Your task to perform on an android device: Play the last video I watched on Youtube Image 0: 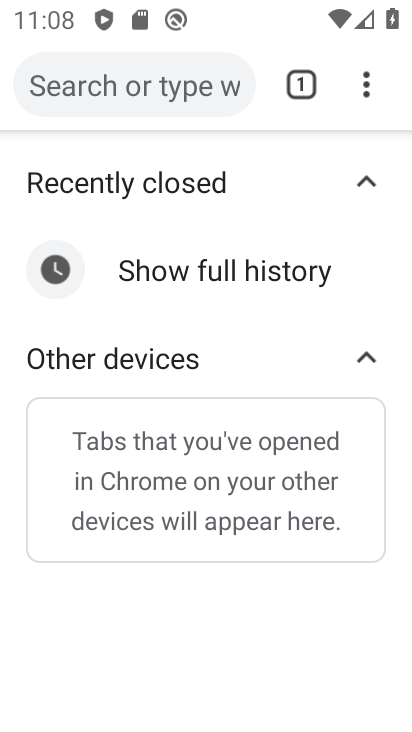
Step 0: press home button
Your task to perform on an android device: Play the last video I watched on Youtube Image 1: 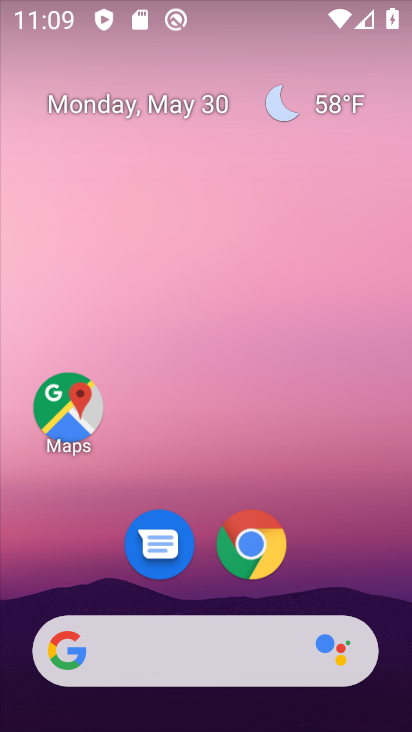
Step 1: drag from (385, 586) to (344, 54)
Your task to perform on an android device: Play the last video I watched on Youtube Image 2: 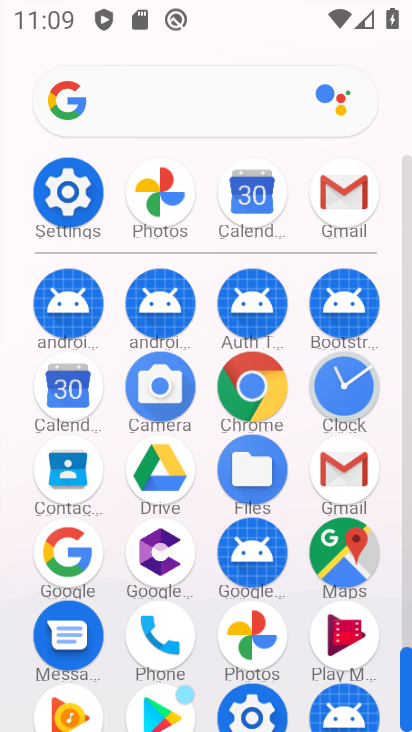
Step 2: drag from (403, 690) to (276, 731)
Your task to perform on an android device: Play the last video I watched on Youtube Image 3: 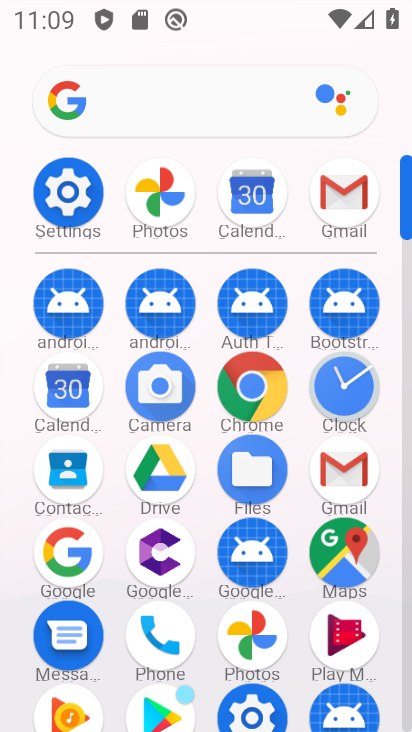
Step 3: click (408, 727)
Your task to perform on an android device: Play the last video I watched on Youtube Image 4: 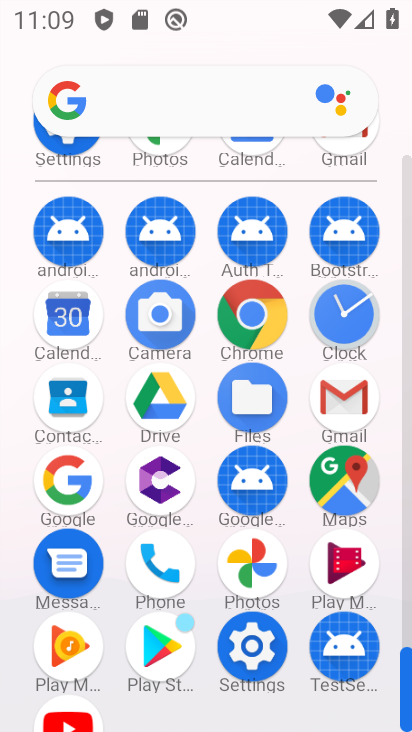
Step 4: click (73, 720)
Your task to perform on an android device: Play the last video I watched on Youtube Image 5: 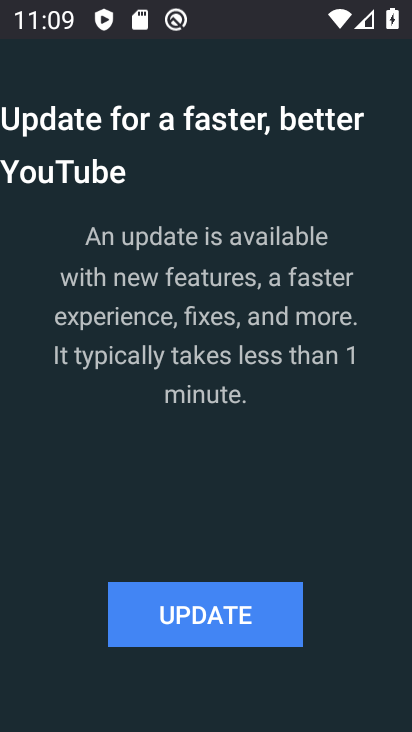
Step 5: task complete